Your task to perform on an android device: Go to network settings Image 0: 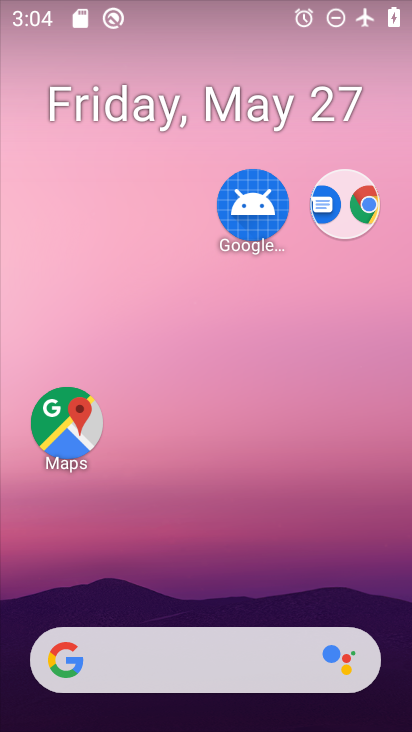
Step 0: drag from (125, 646) to (191, 250)
Your task to perform on an android device: Go to network settings Image 1: 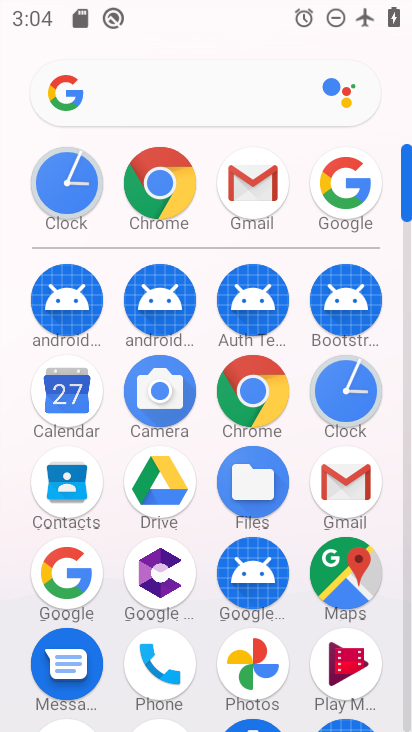
Step 1: drag from (214, 508) to (232, 240)
Your task to perform on an android device: Go to network settings Image 2: 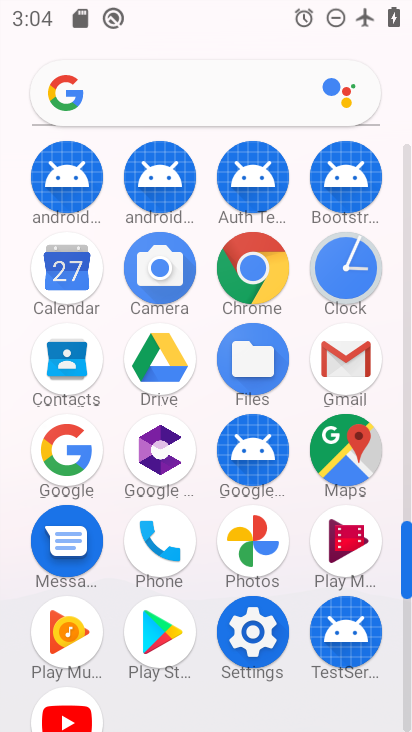
Step 2: click (243, 638)
Your task to perform on an android device: Go to network settings Image 3: 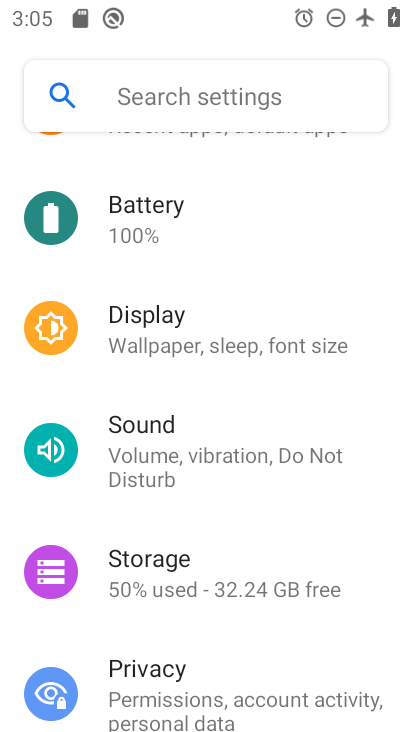
Step 3: drag from (245, 262) to (250, 553)
Your task to perform on an android device: Go to network settings Image 4: 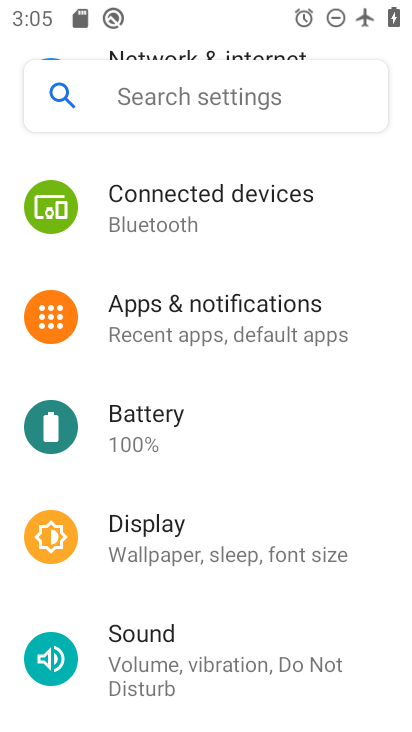
Step 4: drag from (254, 350) to (246, 514)
Your task to perform on an android device: Go to network settings Image 5: 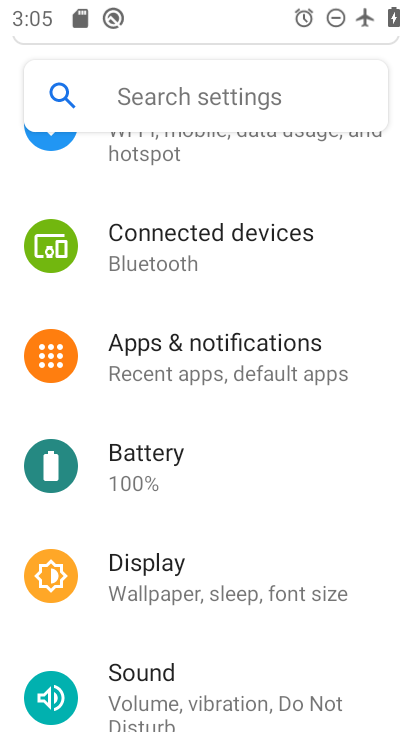
Step 5: drag from (279, 311) to (283, 731)
Your task to perform on an android device: Go to network settings Image 6: 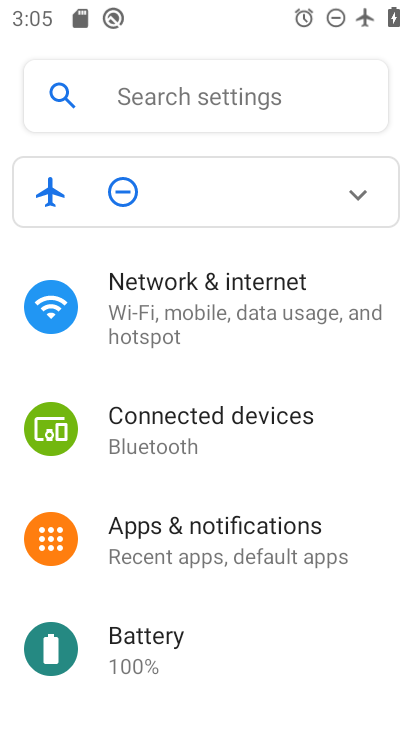
Step 6: click (264, 328)
Your task to perform on an android device: Go to network settings Image 7: 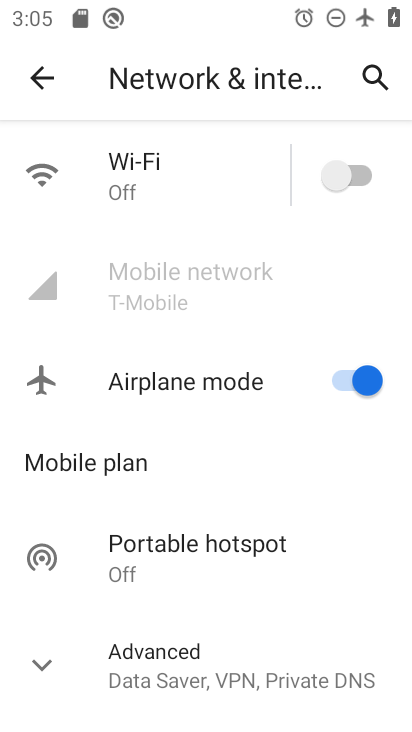
Step 7: click (185, 278)
Your task to perform on an android device: Go to network settings Image 8: 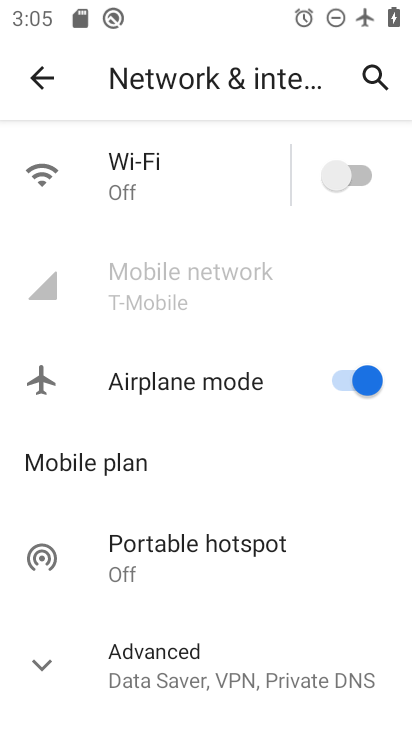
Step 8: task complete